Your task to perform on an android device: add a label to a message in the gmail app Image 0: 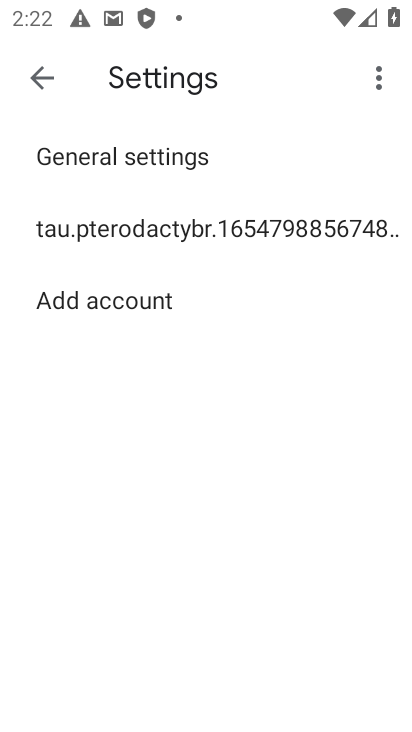
Step 0: press home button
Your task to perform on an android device: add a label to a message in the gmail app Image 1: 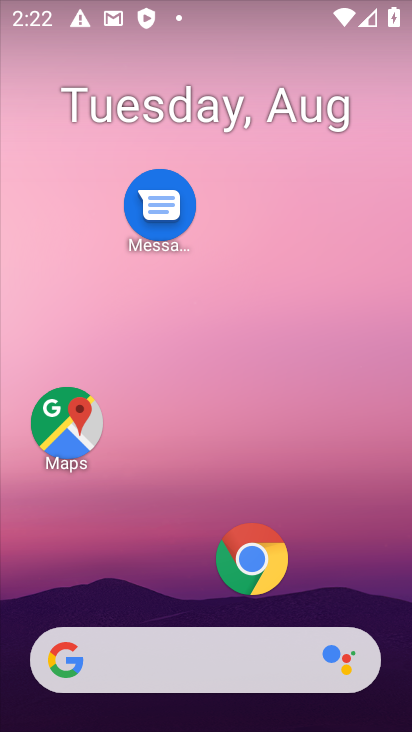
Step 1: drag from (159, 574) to (159, 8)
Your task to perform on an android device: add a label to a message in the gmail app Image 2: 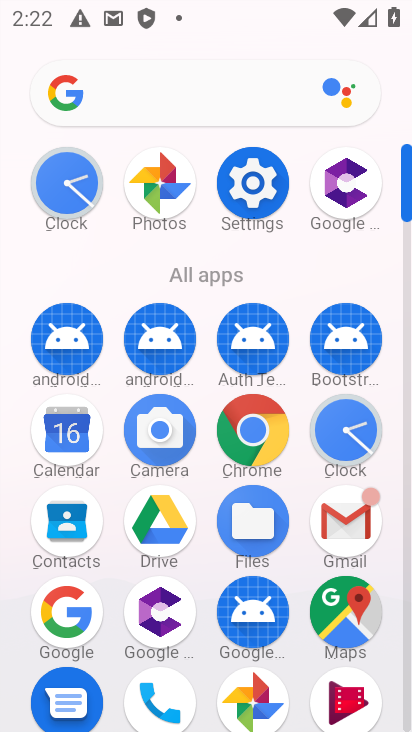
Step 2: click (346, 522)
Your task to perform on an android device: add a label to a message in the gmail app Image 3: 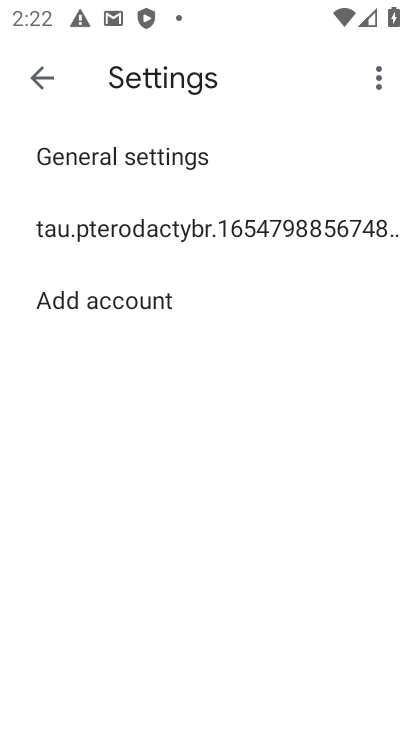
Step 3: click (41, 78)
Your task to perform on an android device: add a label to a message in the gmail app Image 4: 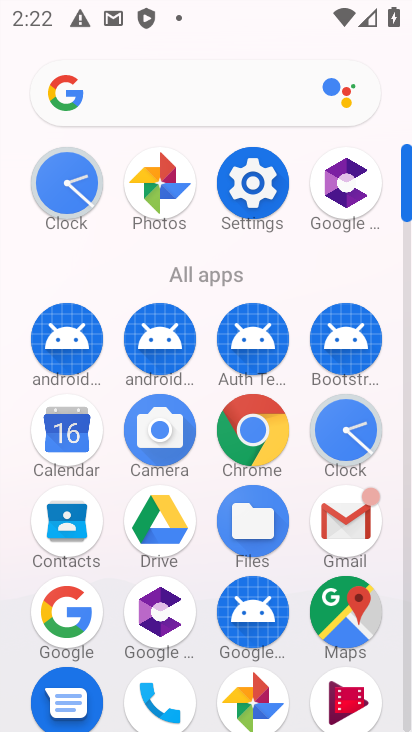
Step 4: click (345, 511)
Your task to perform on an android device: add a label to a message in the gmail app Image 5: 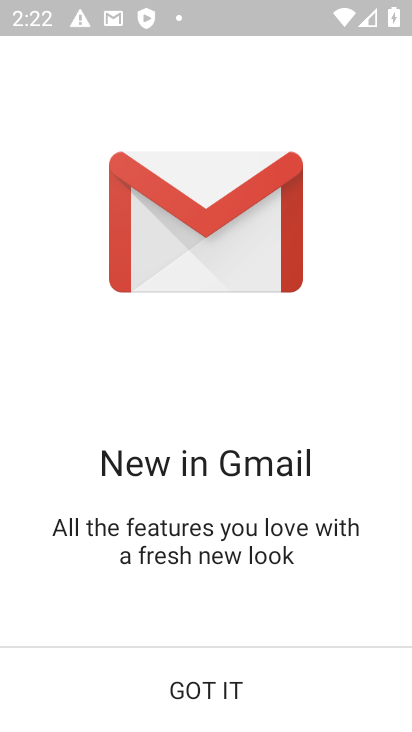
Step 5: click (197, 674)
Your task to perform on an android device: add a label to a message in the gmail app Image 6: 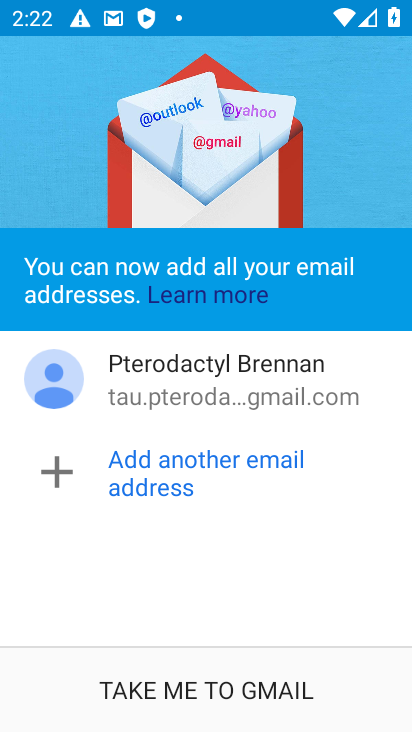
Step 6: click (218, 674)
Your task to perform on an android device: add a label to a message in the gmail app Image 7: 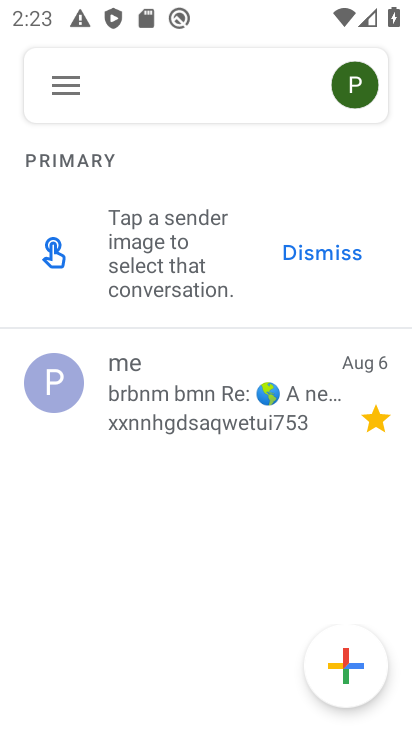
Step 7: click (220, 393)
Your task to perform on an android device: add a label to a message in the gmail app Image 8: 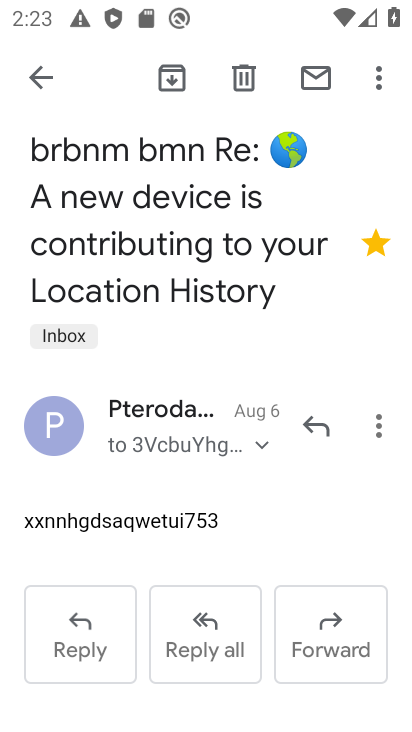
Step 8: click (382, 72)
Your task to perform on an android device: add a label to a message in the gmail app Image 9: 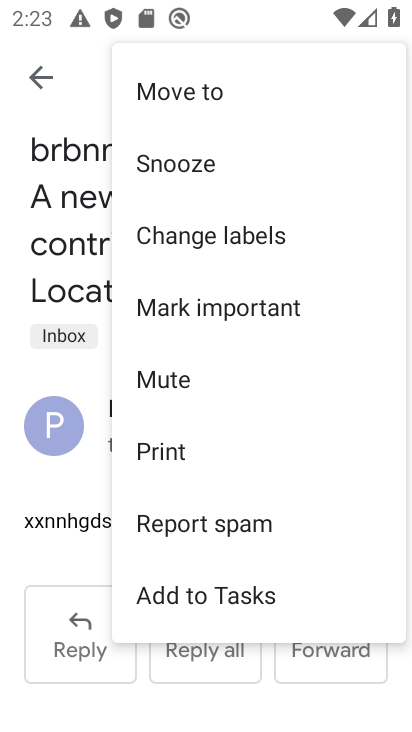
Step 9: click (209, 235)
Your task to perform on an android device: add a label to a message in the gmail app Image 10: 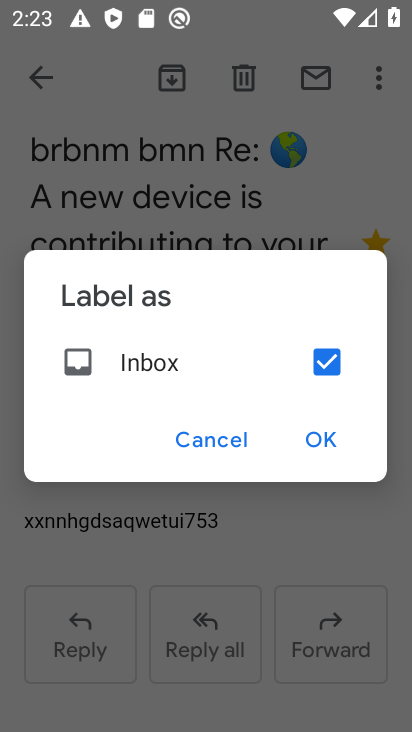
Step 10: click (323, 433)
Your task to perform on an android device: add a label to a message in the gmail app Image 11: 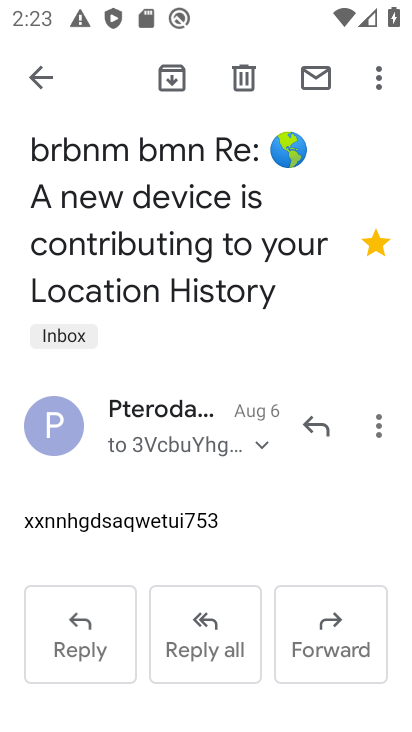
Step 11: task complete